Your task to perform on an android device: refresh tabs in the chrome app Image 0: 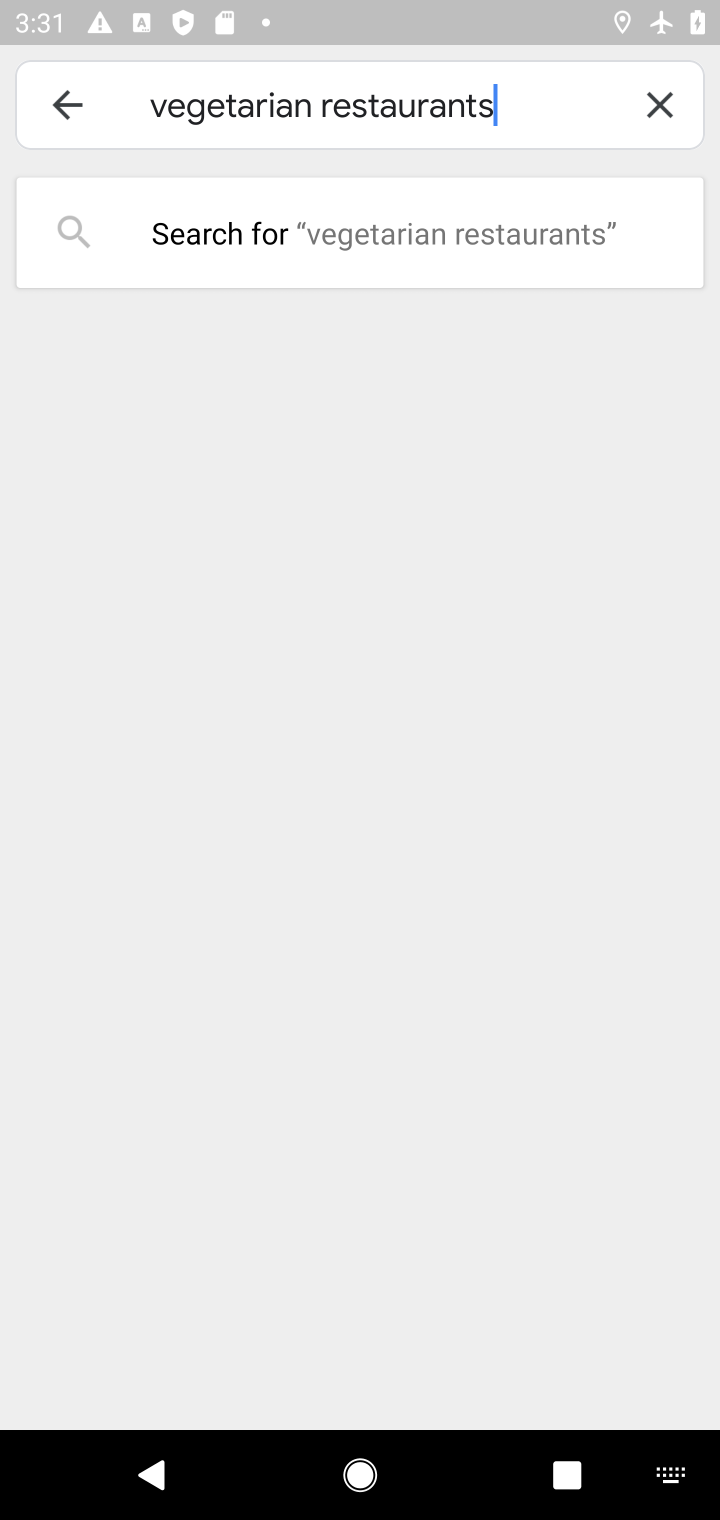
Step 0: press home button
Your task to perform on an android device: refresh tabs in the chrome app Image 1: 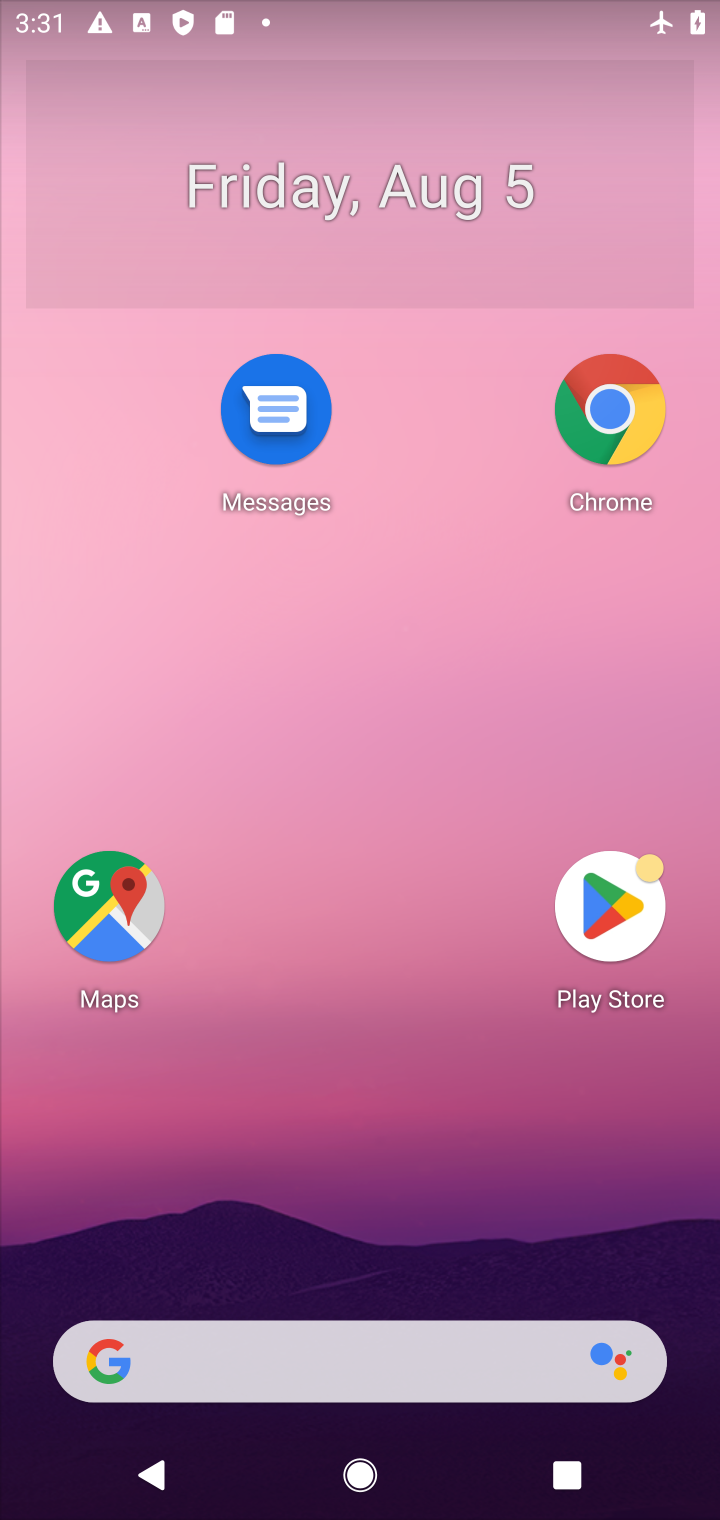
Step 1: click (606, 426)
Your task to perform on an android device: refresh tabs in the chrome app Image 2: 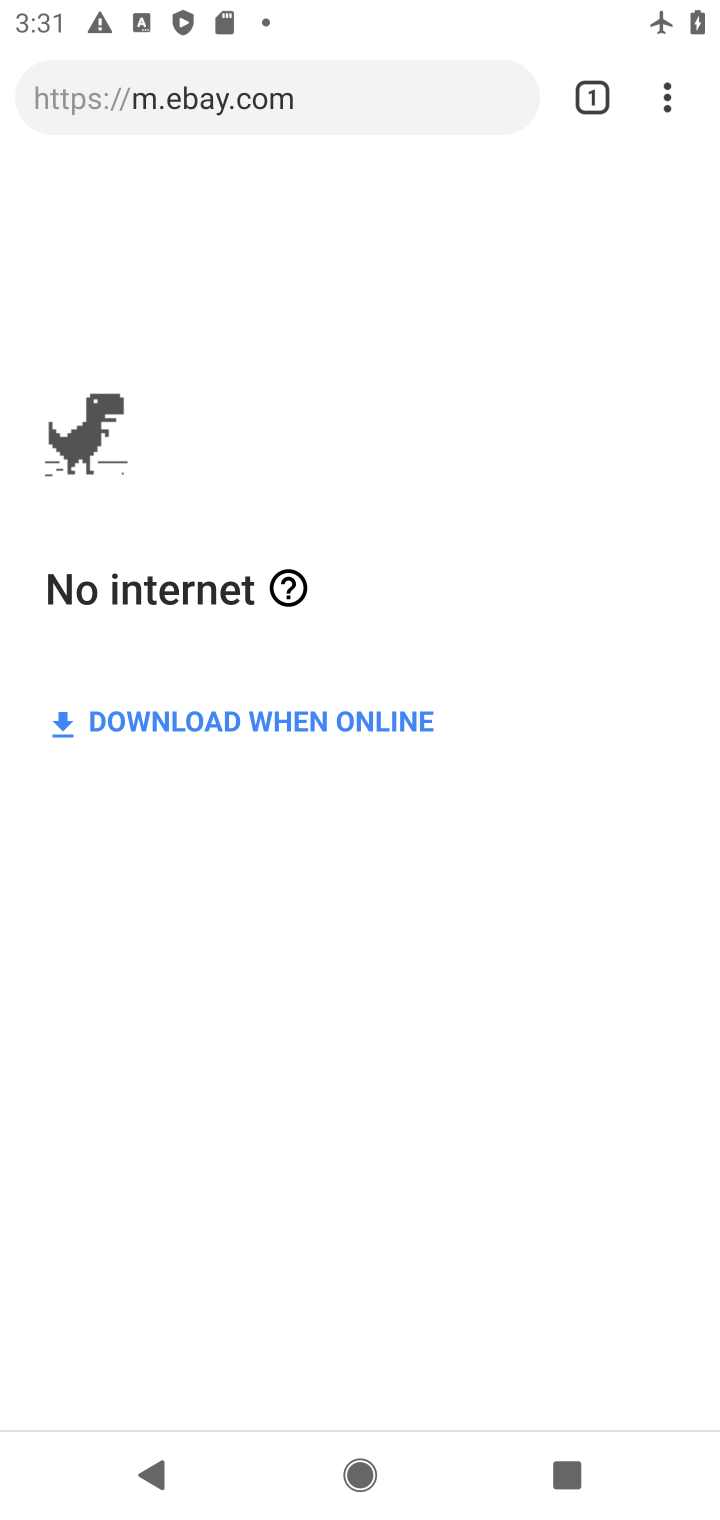
Step 2: click (663, 98)
Your task to perform on an android device: refresh tabs in the chrome app Image 3: 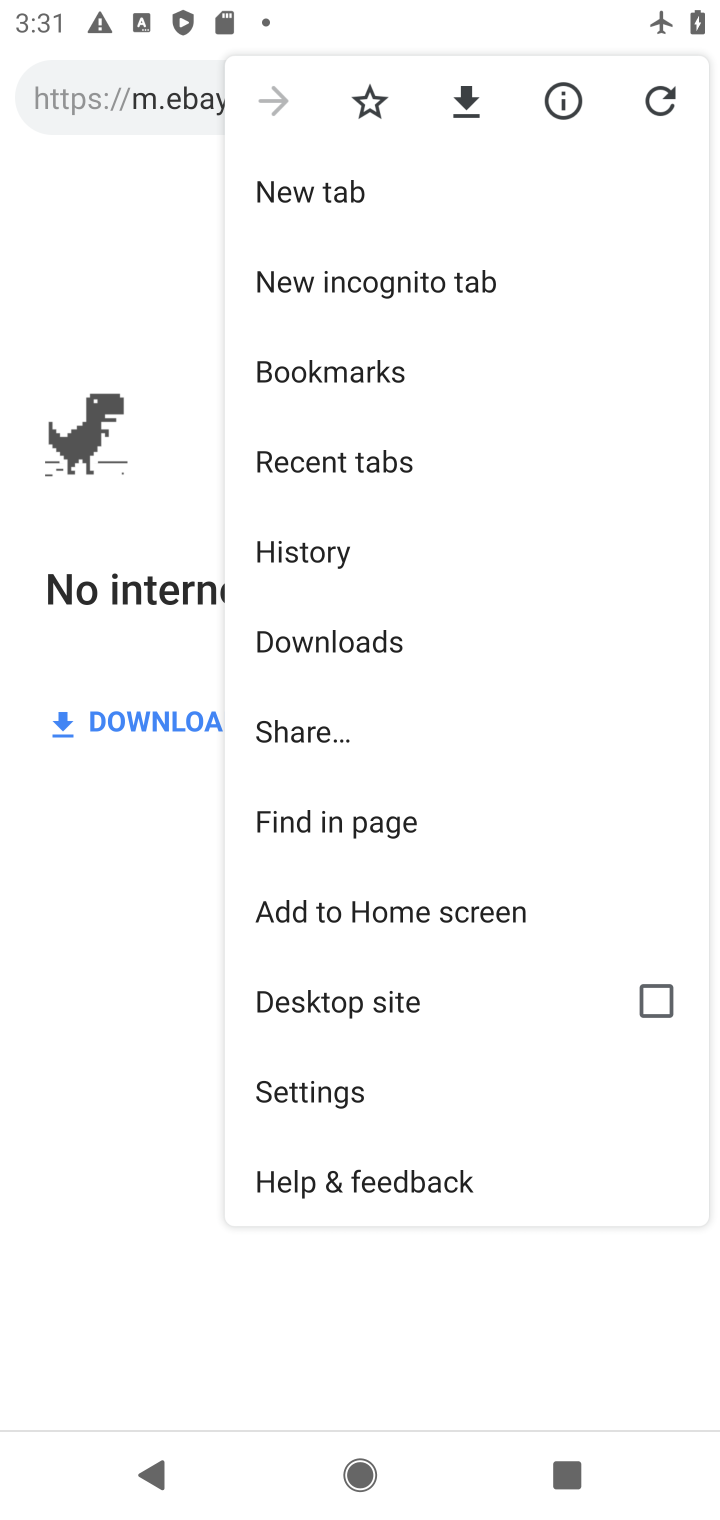
Step 3: click (654, 103)
Your task to perform on an android device: refresh tabs in the chrome app Image 4: 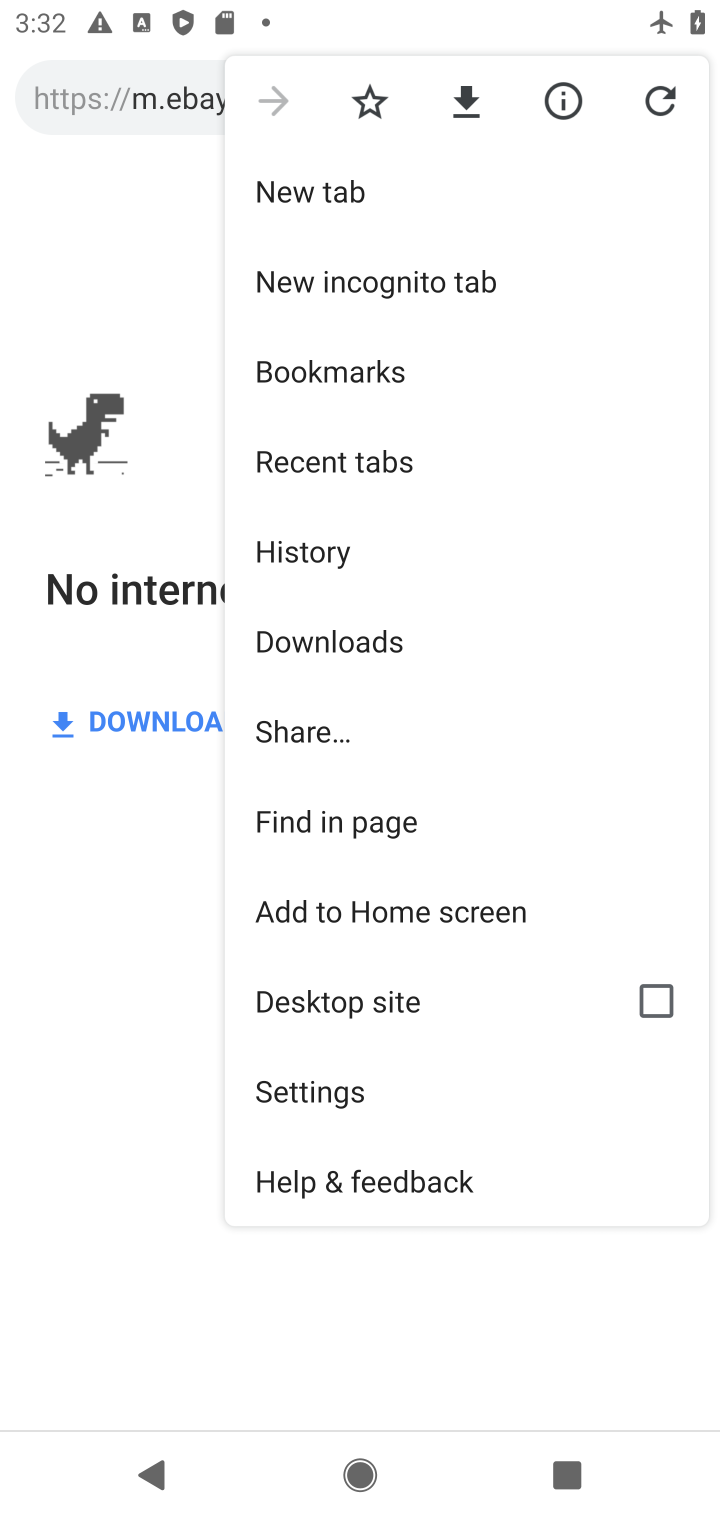
Step 4: task complete